Your task to perform on an android device: Search for seafood restaurants on Google Maps Image 0: 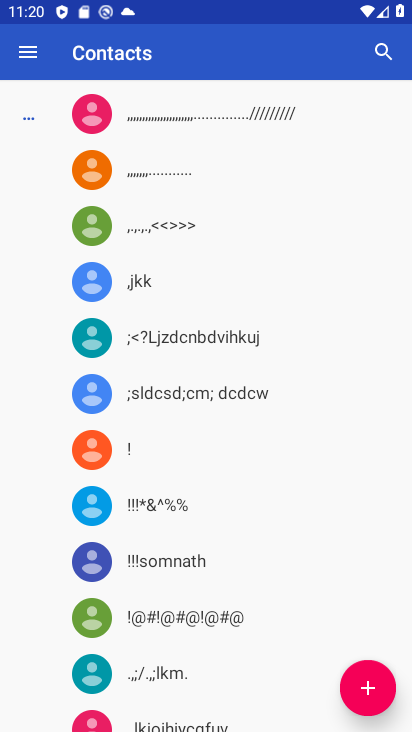
Step 0: press home button
Your task to perform on an android device: Search for seafood restaurants on Google Maps Image 1: 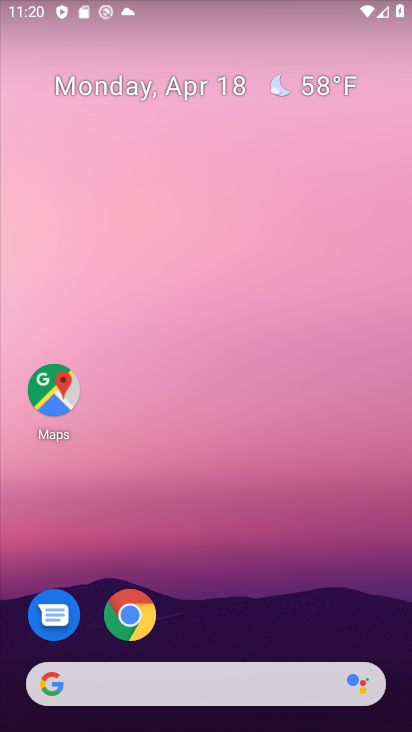
Step 1: drag from (328, 577) to (307, 160)
Your task to perform on an android device: Search for seafood restaurants on Google Maps Image 2: 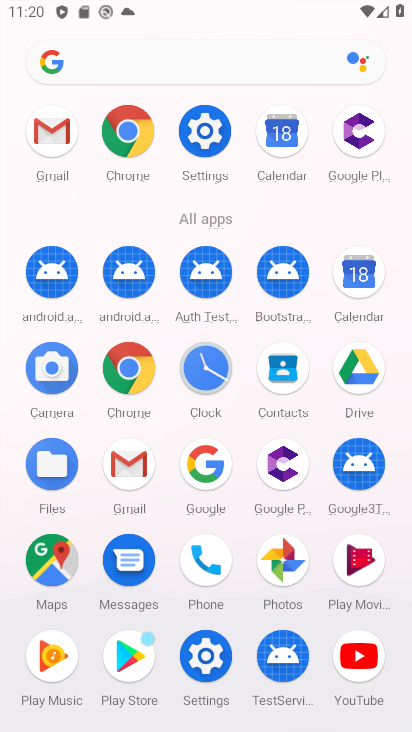
Step 2: click (30, 564)
Your task to perform on an android device: Search for seafood restaurants on Google Maps Image 3: 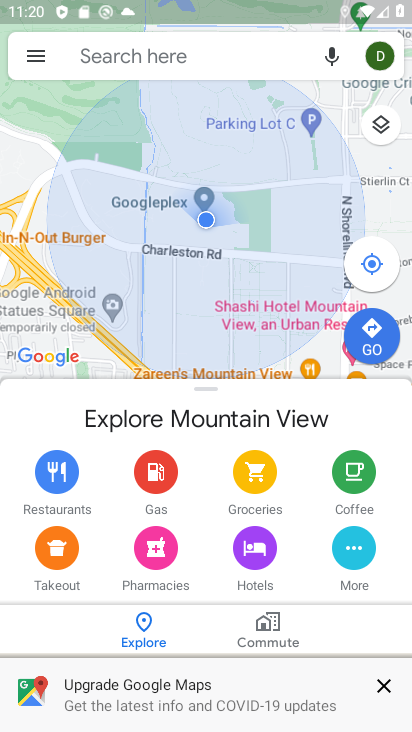
Step 3: click (191, 57)
Your task to perform on an android device: Search for seafood restaurants on Google Maps Image 4: 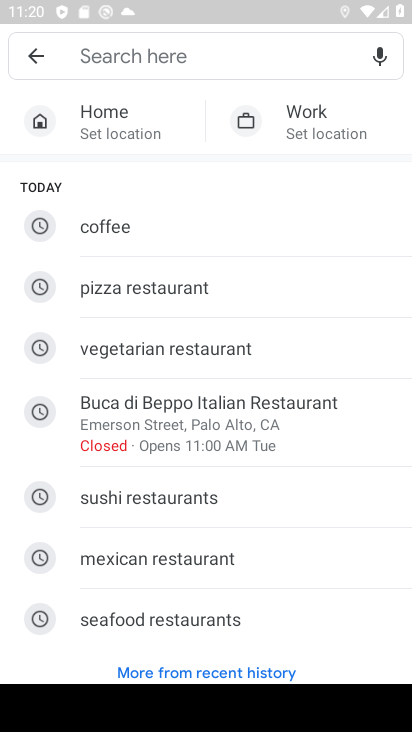
Step 4: type "seafood"
Your task to perform on an android device: Search for seafood restaurants on Google Maps Image 5: 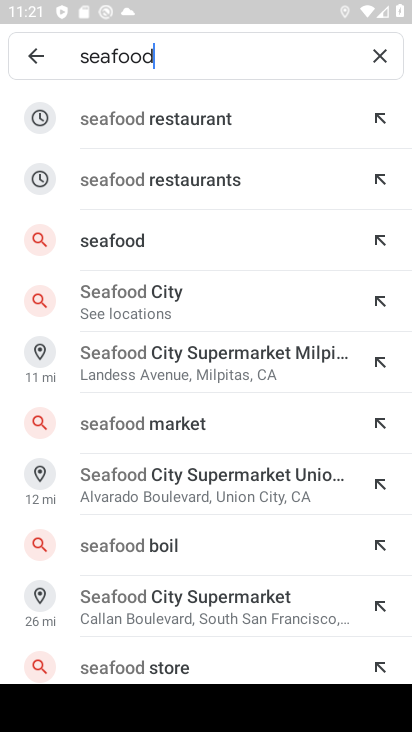
Step 5: click (247, 127)
Your task to perform on an android device: Search for seafood restaurants on Google Maps Image 6: 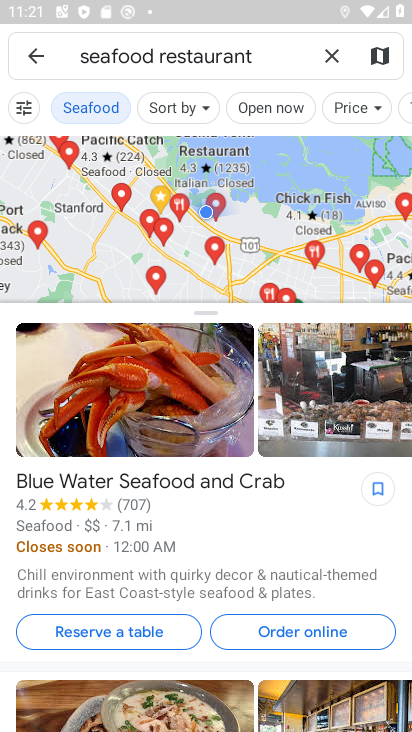
Step 6: task complete